Your task to perform on an android device: change the clock display to show seconds Image 0: 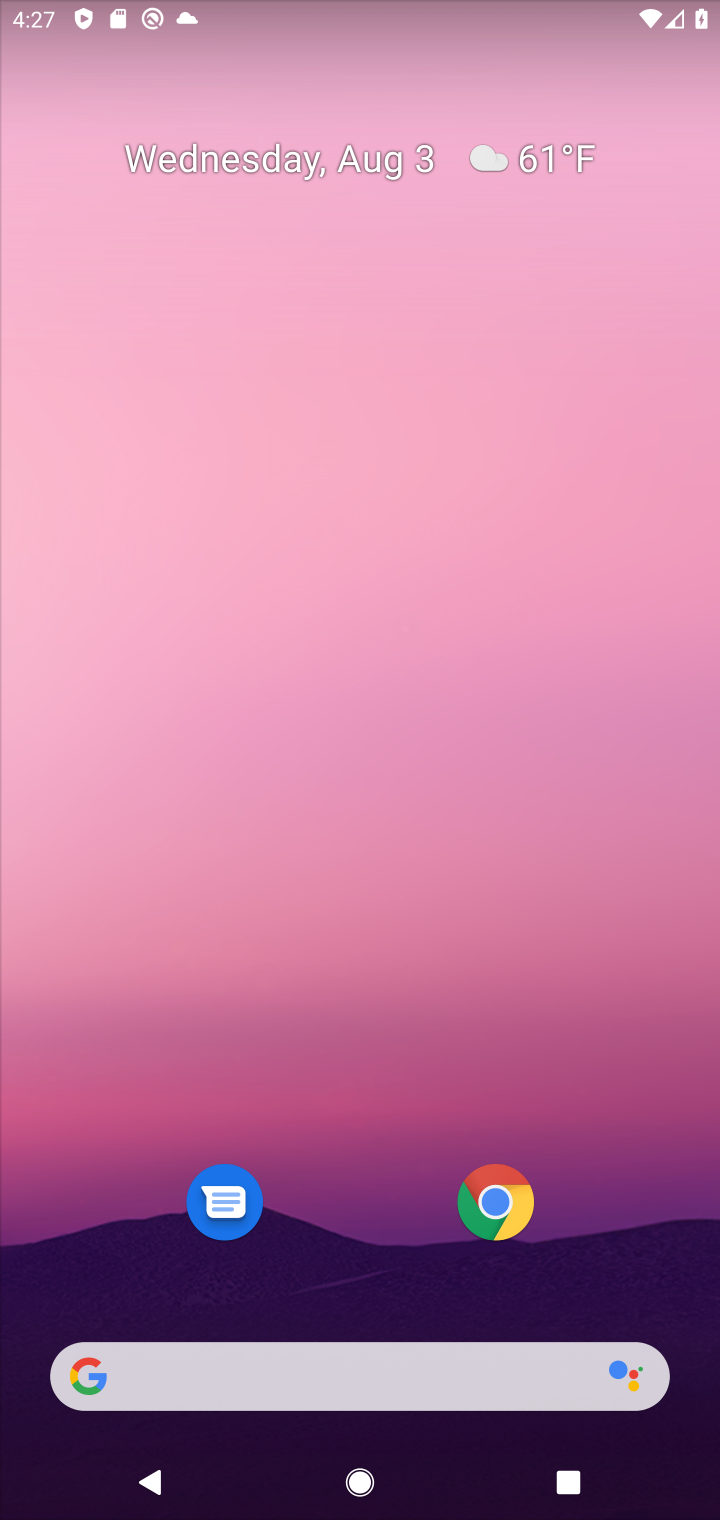
Step 0: drag from (357, 1195) to (351, 58)
Your task to perform on an android device: change the clock display to show seconds Image 1: 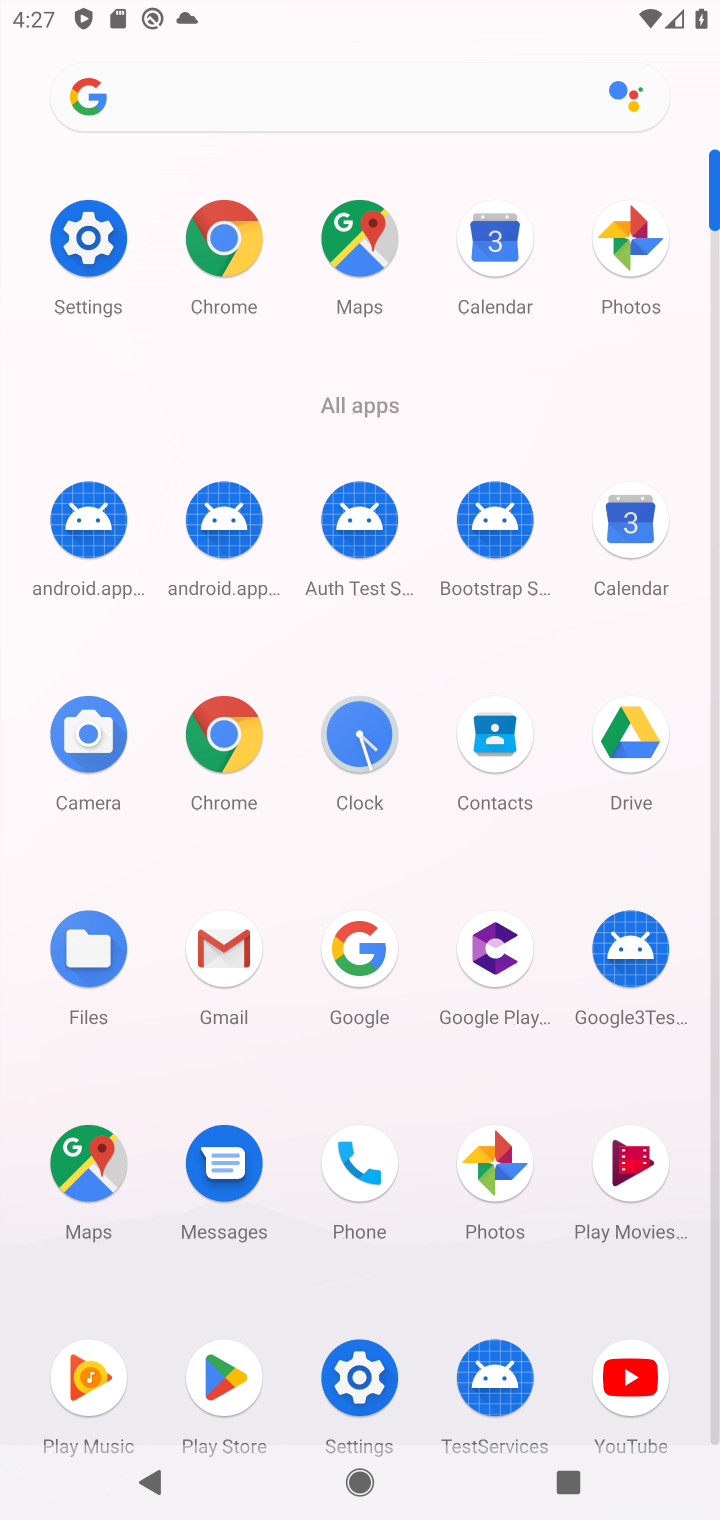
Step 1: click (380, 757)
Your task to perform on an android device: change the clock display to show seconds Image 2: 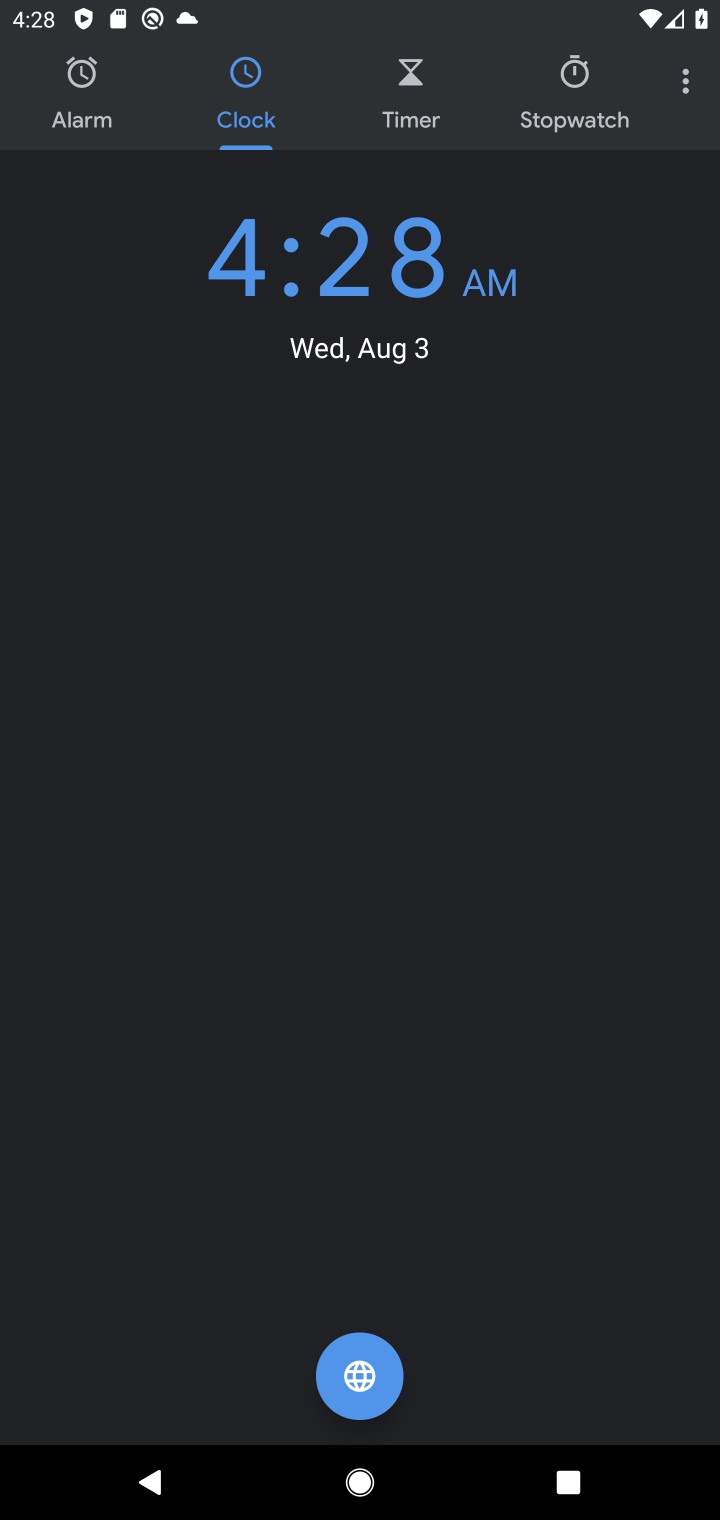
Step 2: click (697, 74)
Your task to perform on an android device: change the clock display to show seconds Image 3: 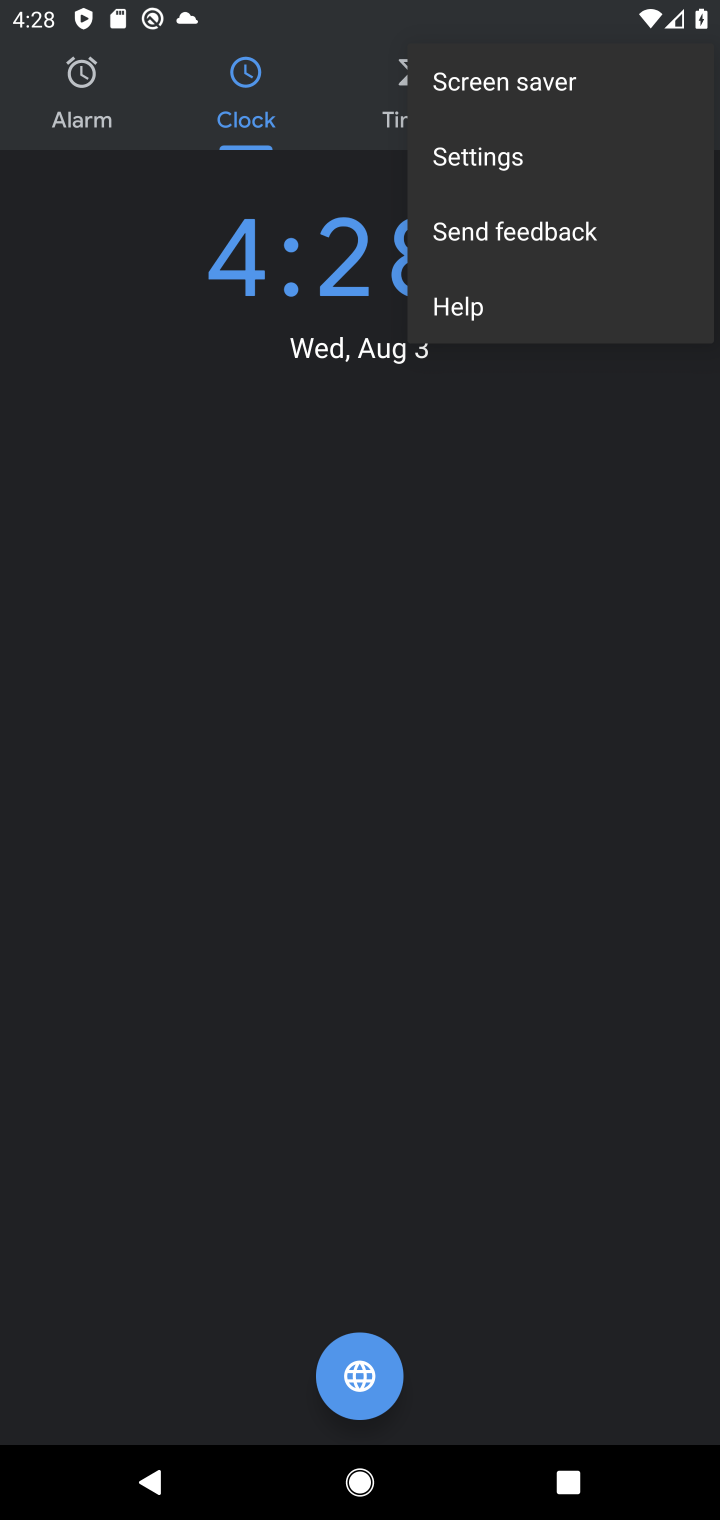
Step 3: click (480, 157)
Your task to perform on an android device: change the clock display to show seconds Image 4: 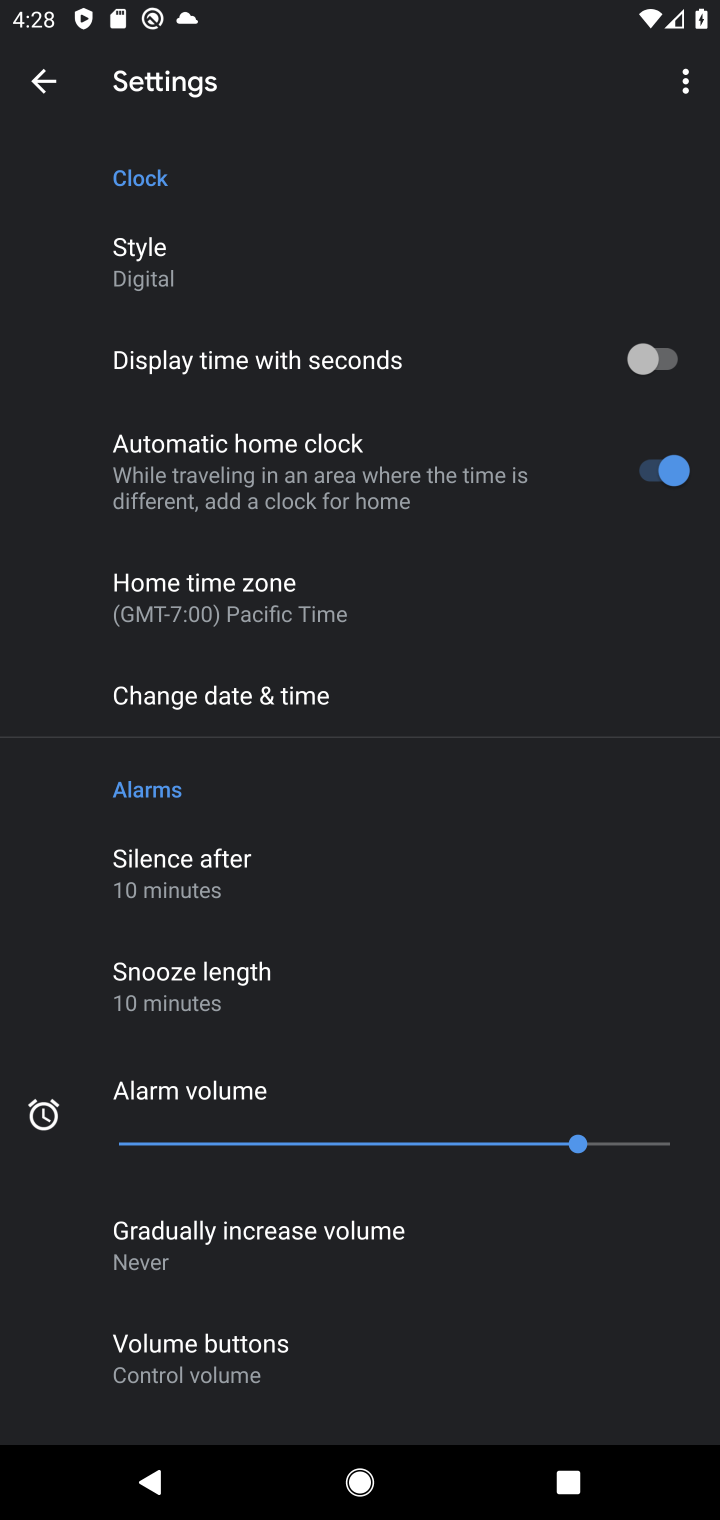
Step 4: click (644, 356)
Your task to perform on an android device: change the clock display to show seconds Image 5: 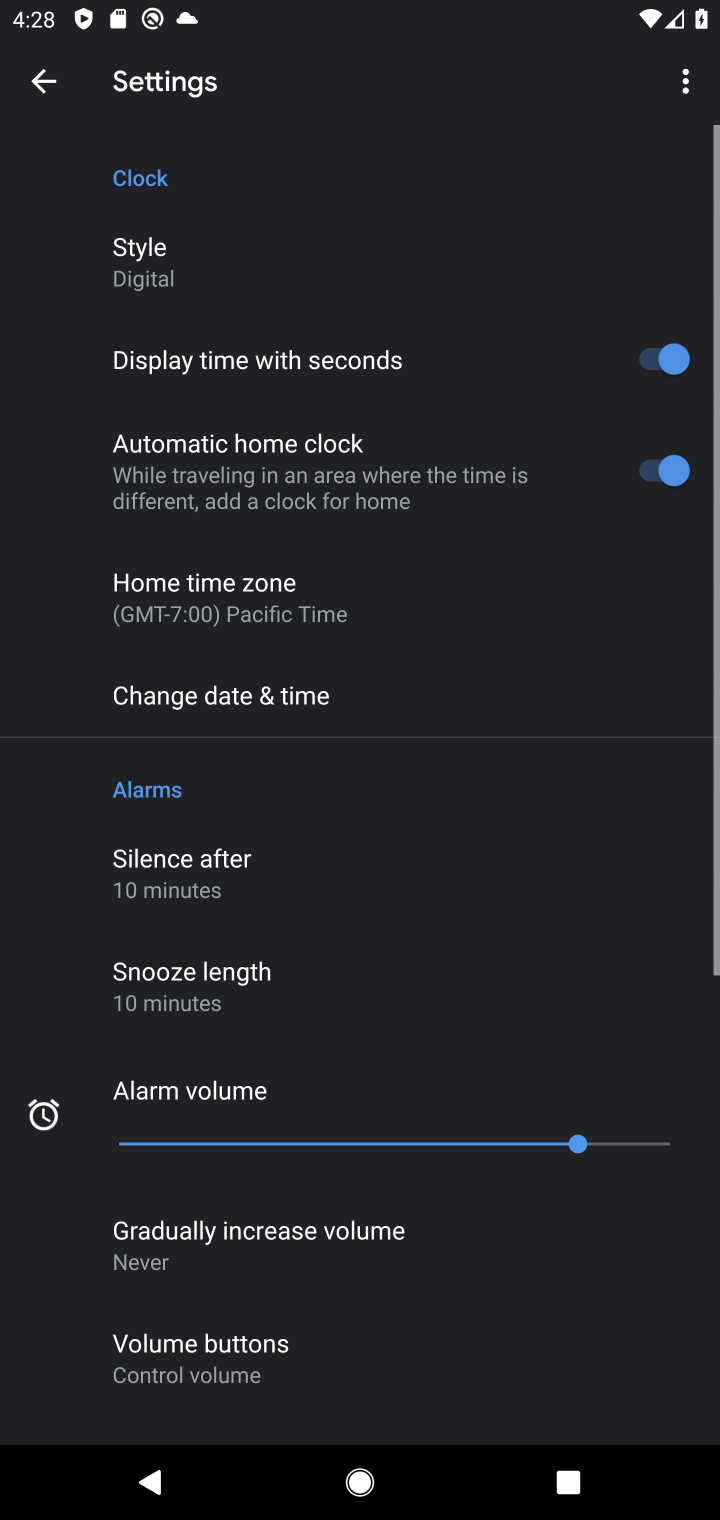
Step 5: task complete